Your task to perform on an android device: Open Google Maps and go to "Timeline" Image 0: 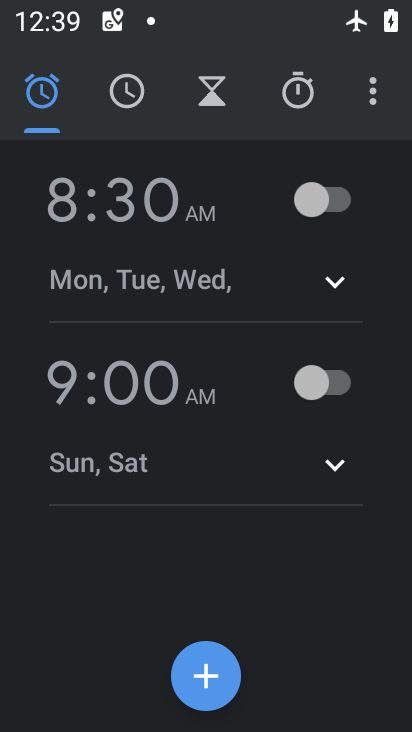
Step 0: press home button
Your task to perform on an android device: Open Google Maps and go to "Timeline" Image 1: 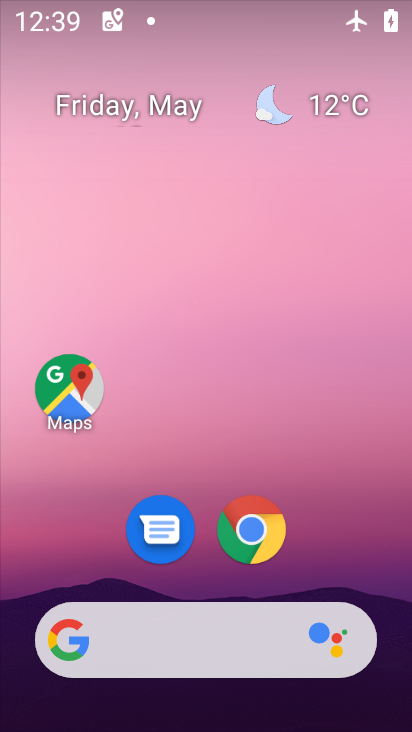
Step 1: drag from (315, 499) to (285, 288)
Your task to perform on an android device: Open Google Maps and go to "Timeline" Image 2: 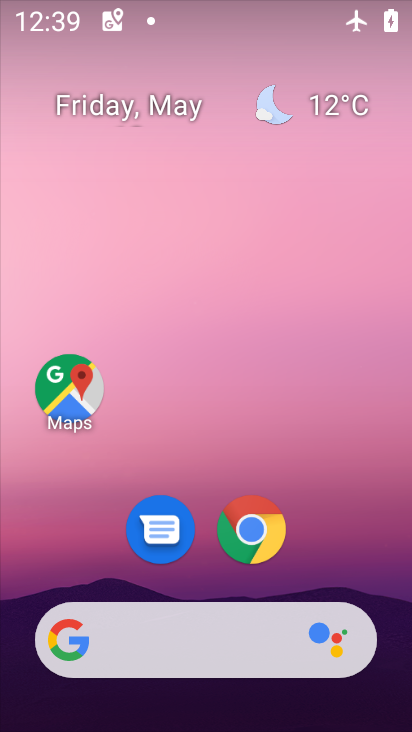
Step 2: drag from (327, 382) to (314, 247)
Your task to perform on an android device: Open Google Maps and go to "Timeline" Image 3: 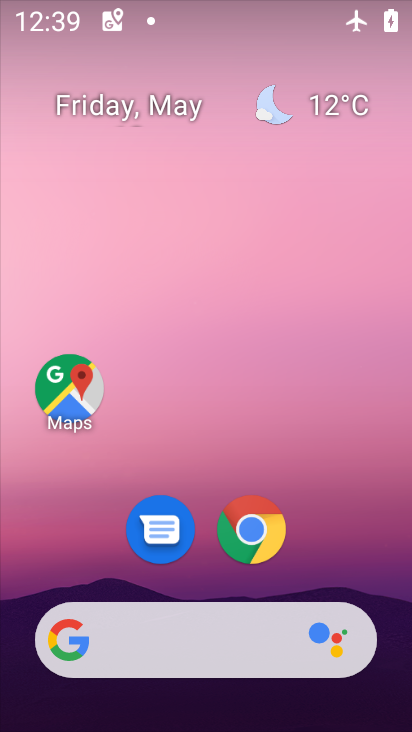
Step 3: click (67, 372)
Your task to perform on an android device: Open Google Maps and go to "Timeline" Image 4: 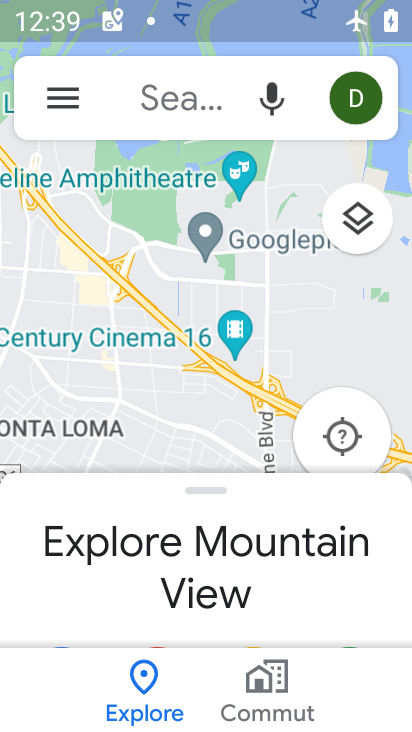
Step 4: click (57, 86)
Your task to perform on an android device: Open Google Maps and go to "Timeline" Image 5: 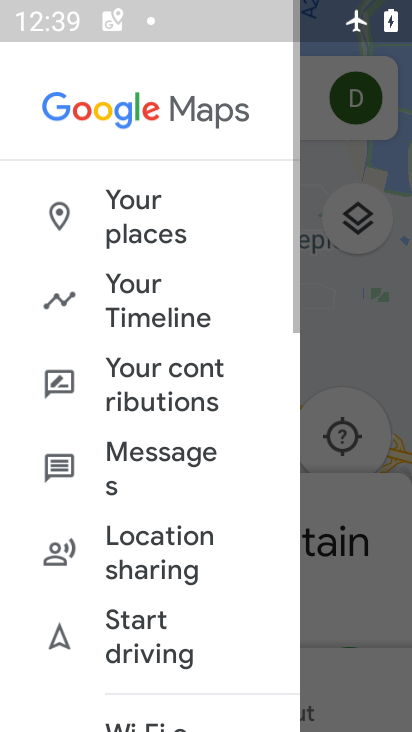
Step 5: click (131, 325)
Your task to perform on an android device: Open Google Maps and go to "Timeline" Image 6: 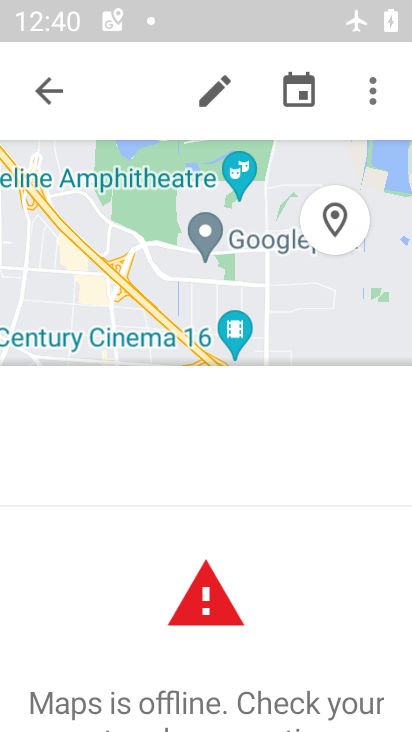
Step 6: task complete